Your task to perform on an android device: open a bookmark in the chrome app Image 0: 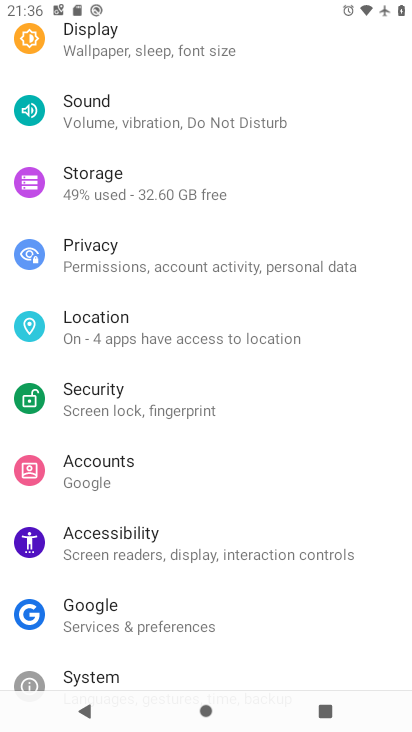
Step 0: press home button
Your task to perform on an android device: open a bookmark in the chrome app Image 1: 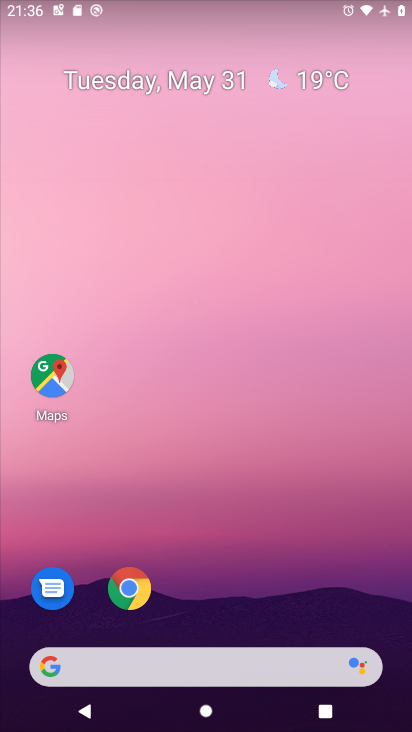
Step 1: click (132, 594)
Your task to perform on an android device: open a bookmark in the chrome app Image 2: 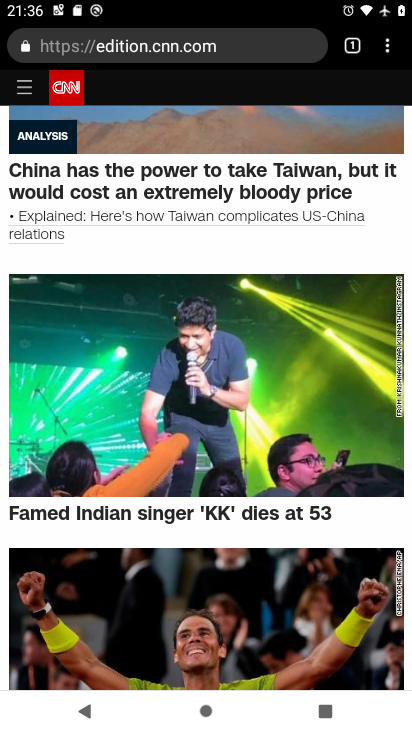
Step 2: task complete